Your task to perform on an android device: Go to location settings Image 0: 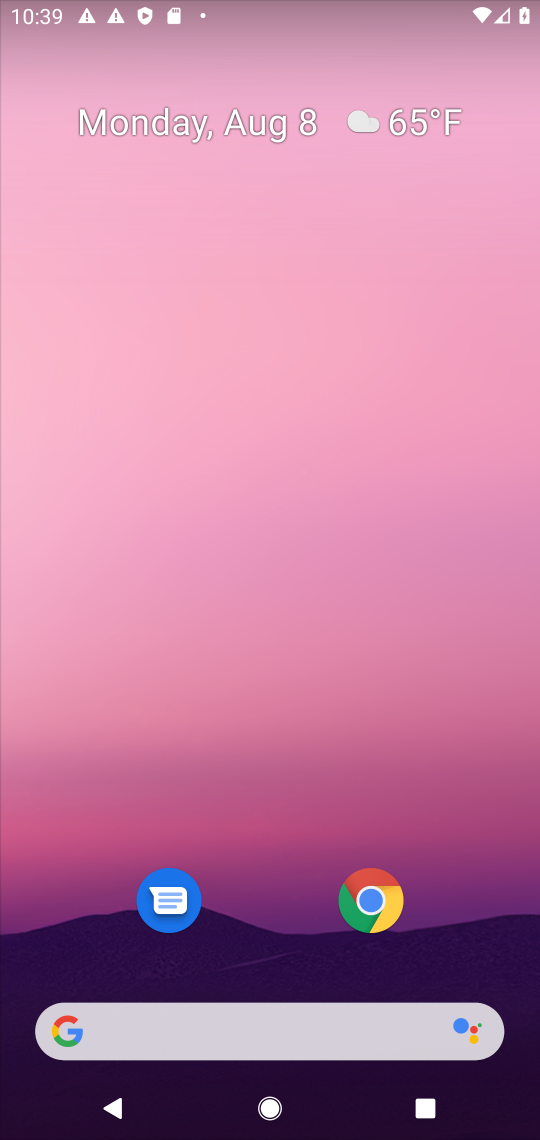
Step 0: drag from (282, 643) to (304, 220)
Your task to perform on an android device: Go to location settings Image 1: 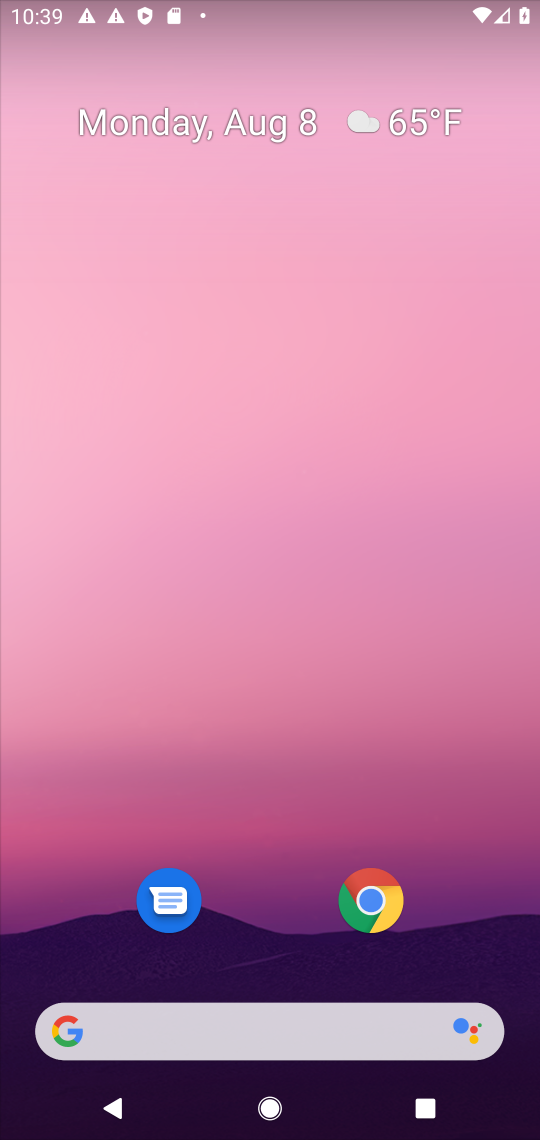
Step 1: drag from (279, 910) to (252, 102)
Your task to perform on an android device: Go to location settings Image 2: 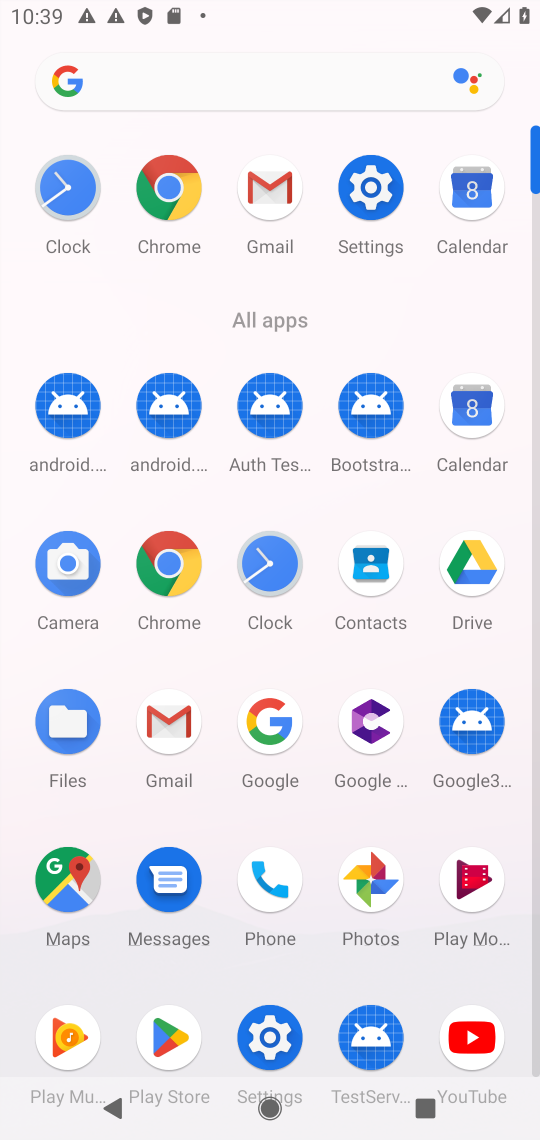
Step 2: click (367, 183)
Your task to perform on an android device: Go to location settings Image 3: 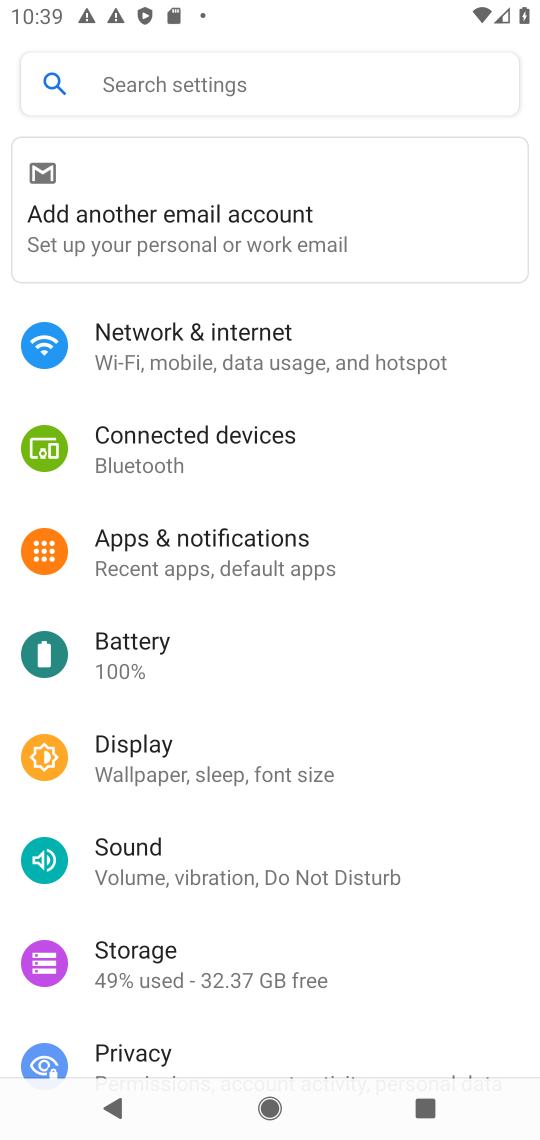
Step 3: drag from (213, 1011) to (297, 470)
Your task to perform on an android device: Go to location settings Image 4: 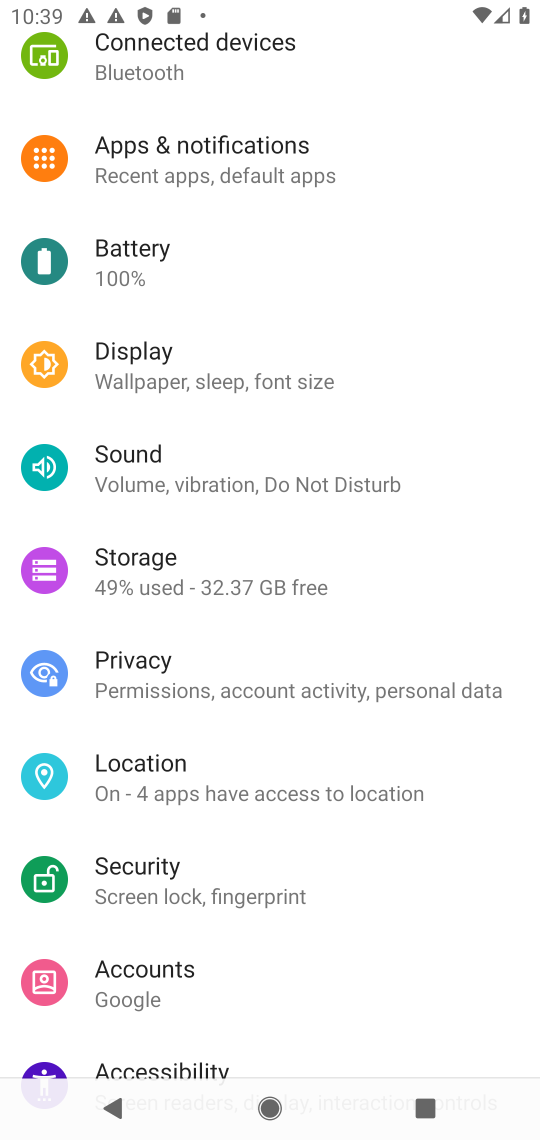
Step 4: click (166, 784)
Your task to perform on an android device: Go to location settings Image 5: 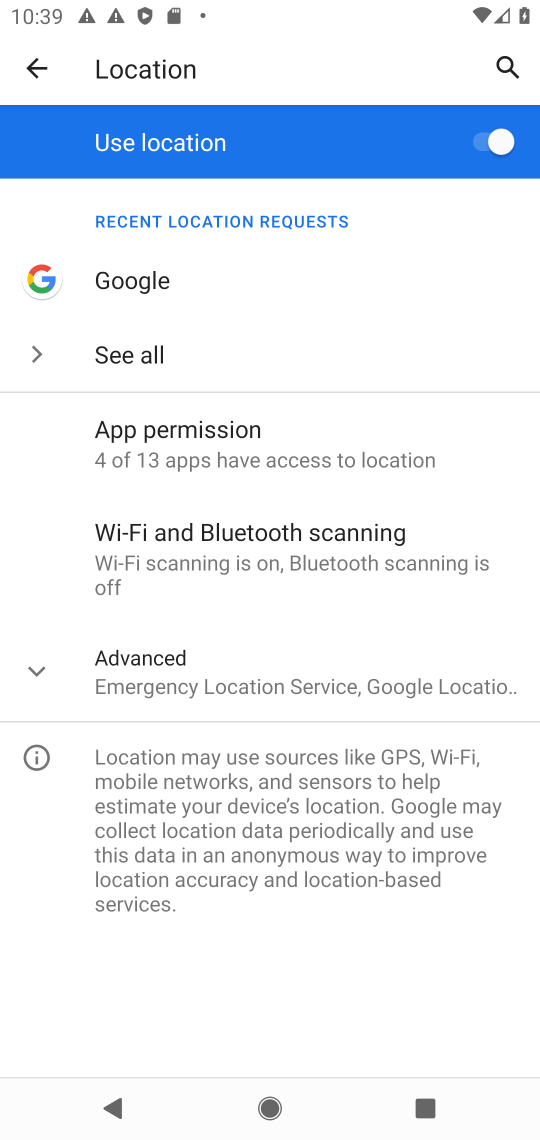
Step 5: task complete